Your task to perform on an android device: Open Google Image 0: 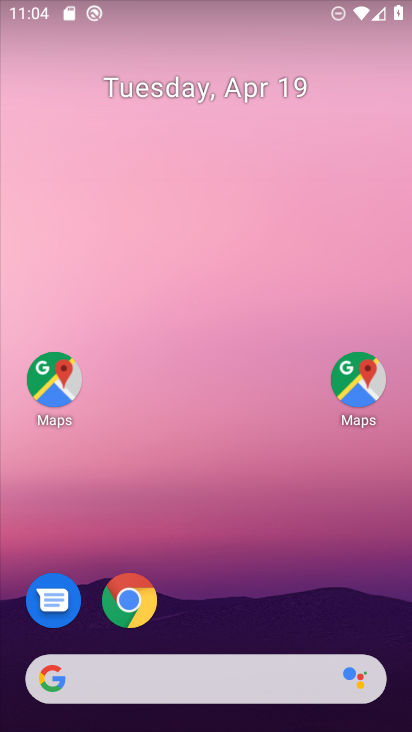
Step 0: drag from (270, 653) to (293, 162)
Your task to perform on an android device: Open Google Image 1: 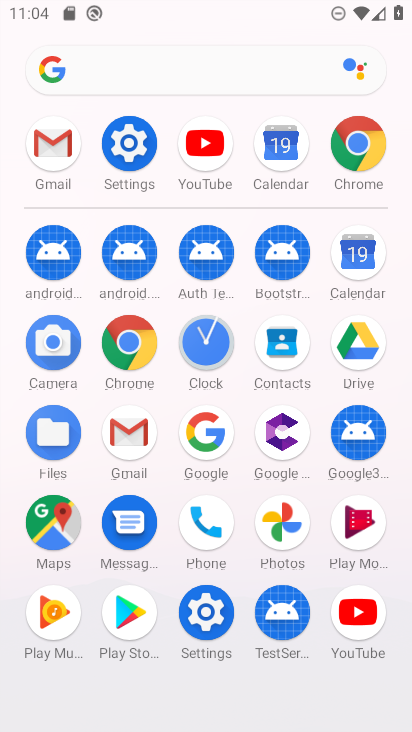
Step 1: click (127, 355)
Your task to perform on an android device: Open Google Image 2: 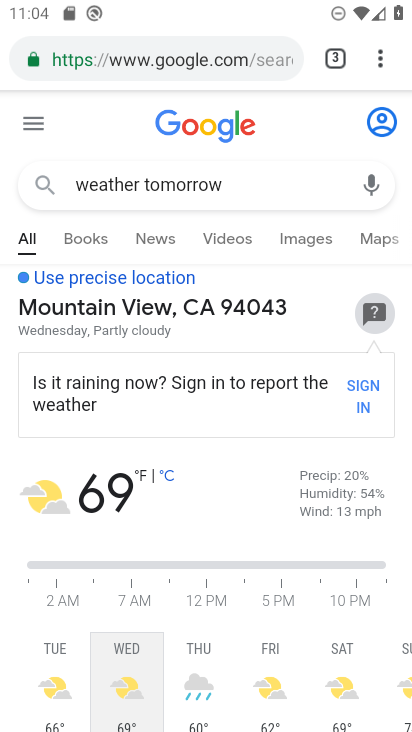
Step 2: click (382, 58)
Your task to perform on an android device: Open Google Image 3: 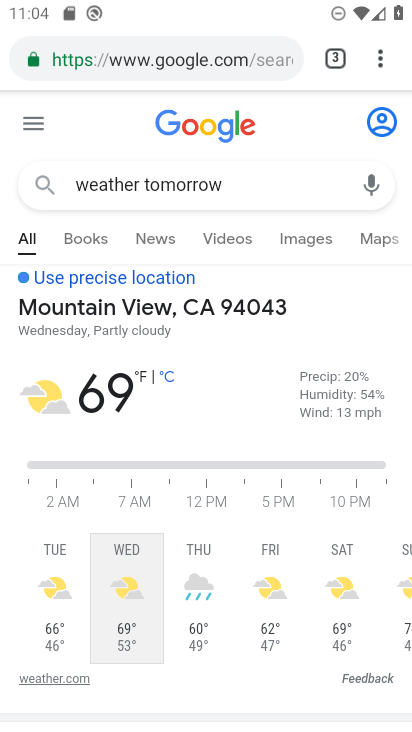
Step 3: click (363, 57)
Your task to perform on an android device: Open Google Image 4: 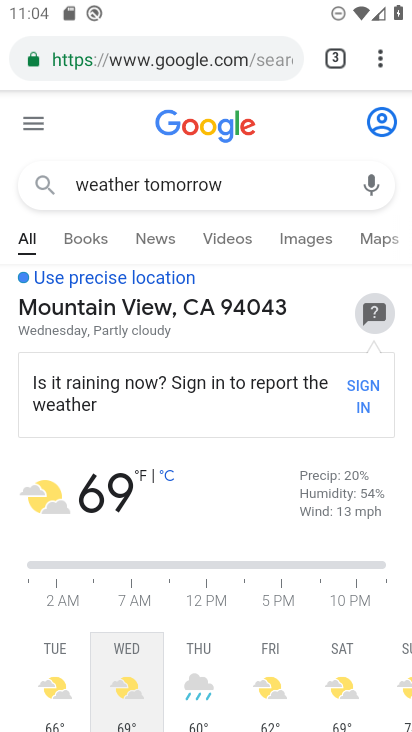
Step 4: click (368, 58)
Your task to perform on an android device: Open Google Image 5: 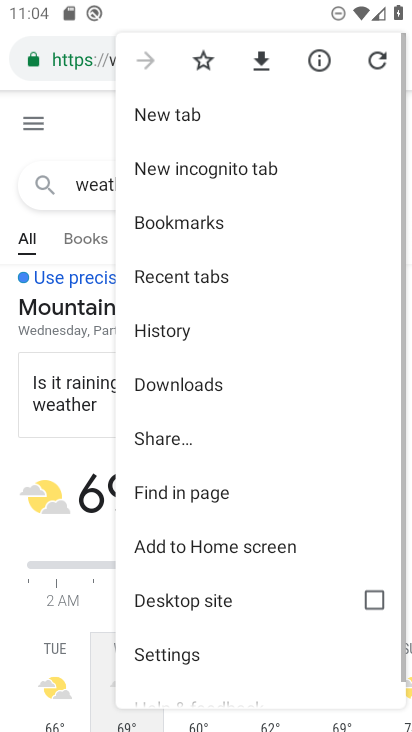
Step 5: click (281, 110)
Your task to perform on an android device: Open Google Image 6: 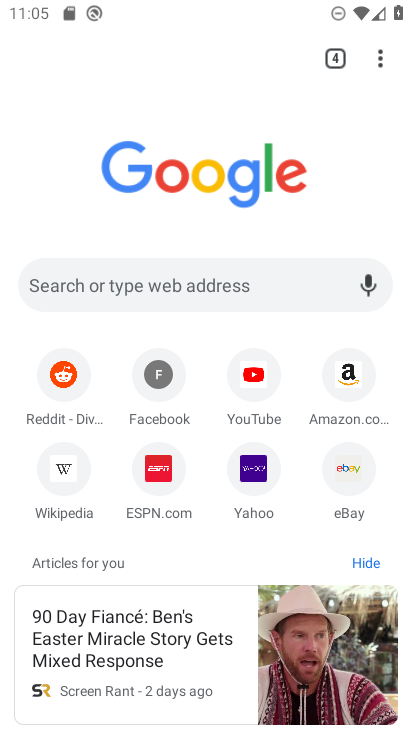
Step 6: task complete